Your task to perform on an android device: Check the news Image 0: 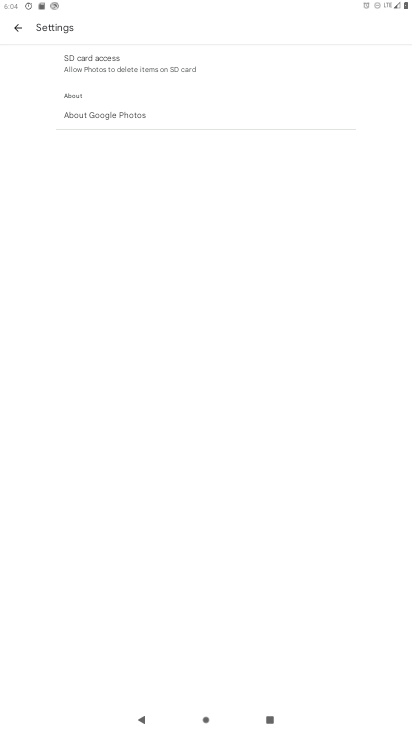
Step 0: press home button
Your task to perform on an android device: Check the news Image 1: 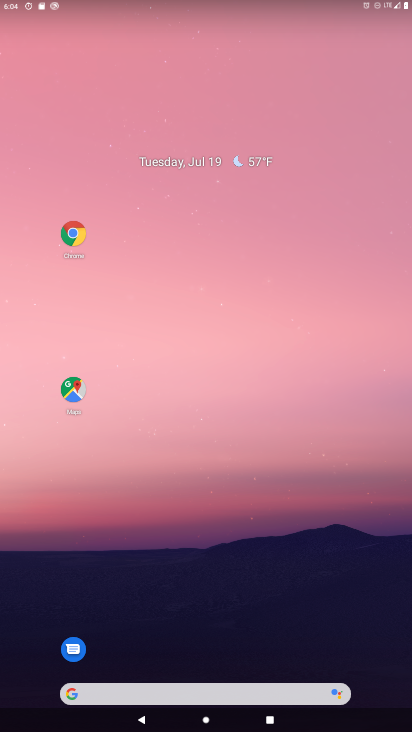
Step 1: click (155, 694)
Your task to perform on an android device: Check the news Image 2: 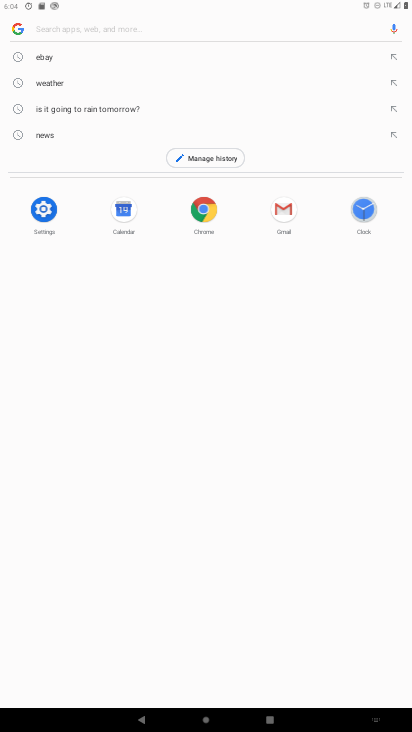
Step 2: type "news"
Your task to perform on an android device: Check the news Image 3: 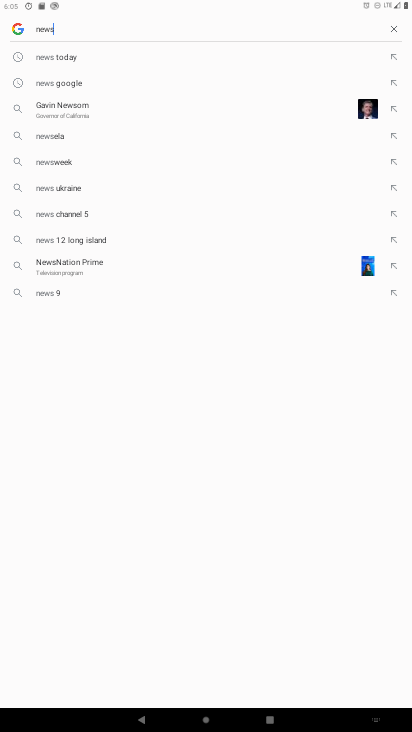
Step 3: click (151, 32)
Your task to perform on an android device: Check the news Image 4: 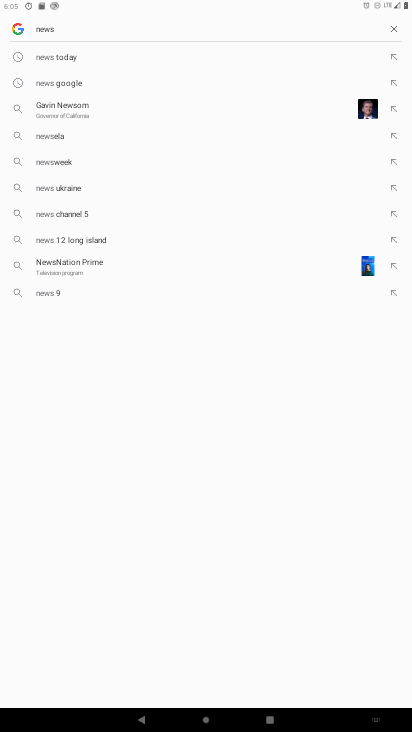
Step 4: click (63, 61)
Your task to perform on an android device: Check the news Image 5: 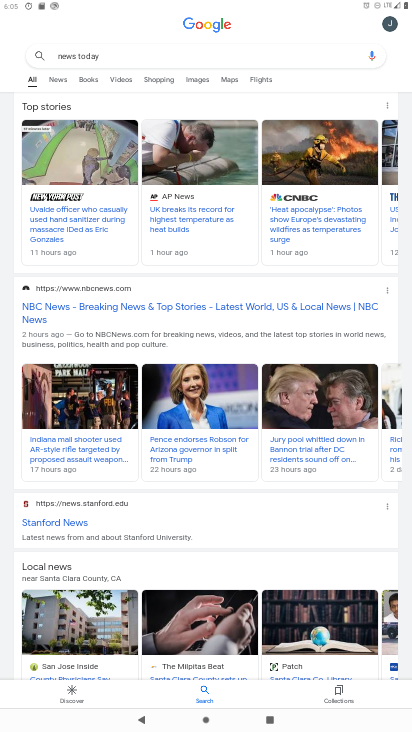
Step 5: task complete